Your task to perform on an android device: Go to Reddit.com Image 0: 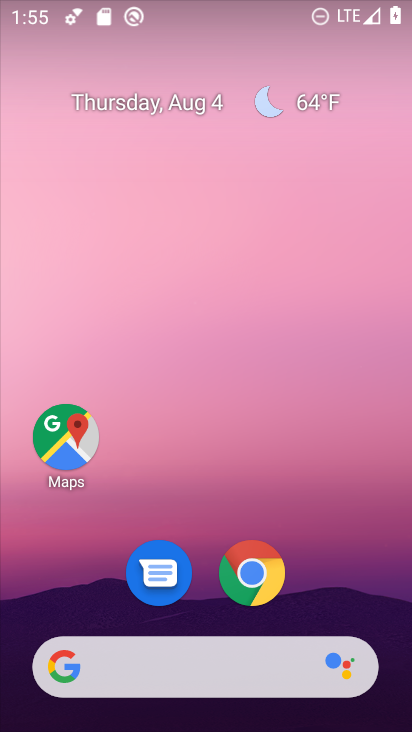
Step 0: drag from (352, 496) to (328, 102)
Your task to perform on an android device: Go to Reddit.com Image 1: 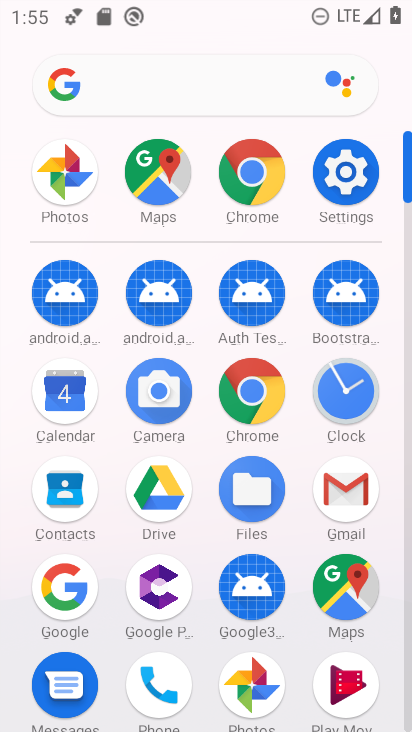
Step 1: click (250, 400)
Your task to perform on an android device: Go to Reddit.com Image 2: 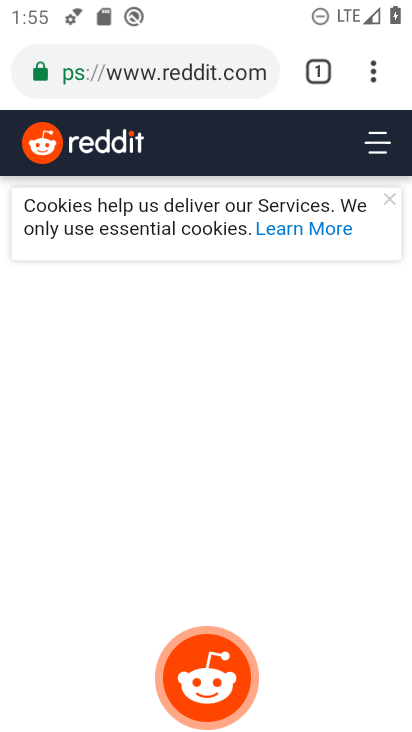
Step 2: task complete